Your task to perform on an android device: make emails show in primary in the gmail app Image 0: 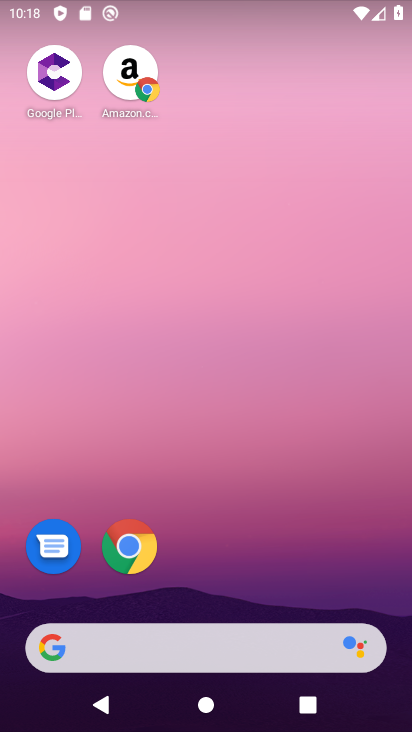
Step 0: drag from (276, 565) to (273, 51)
Your task to perform on an android device: make emails show in primary in the gmail app Image 1: 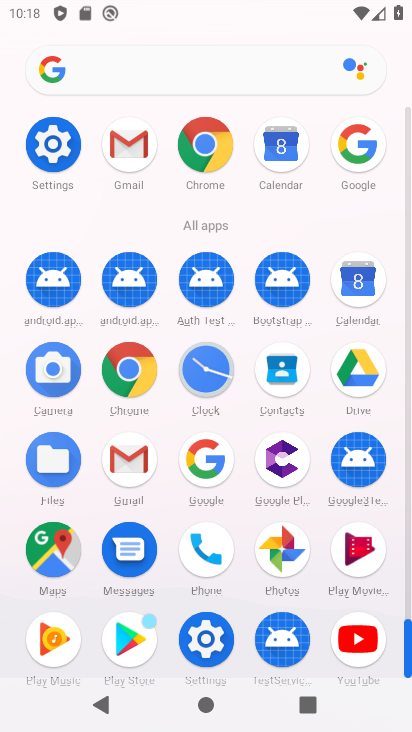
Step 1: click (127, 146)
Your task to perform on an android device: make emails show in primary in the gmail app Image 2: 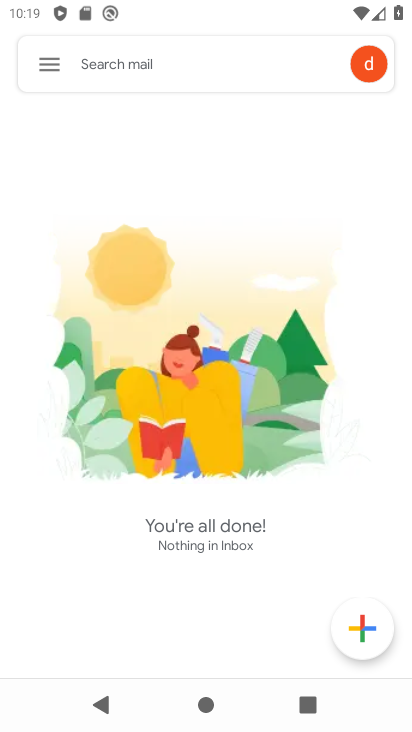
Step 2: click (49, 63)
Your task to perform on an android device: make emails show in primary in the gmail app Image 3: 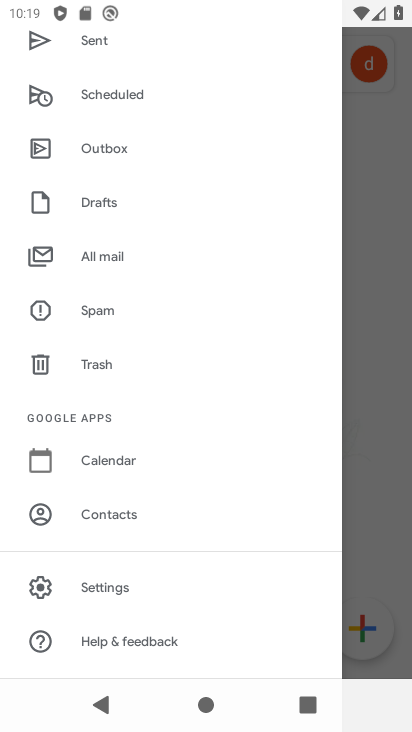
Step 3: click (111, 583)
Your task to perform on an android device: make emails show in primary in the gmail app Image 4: 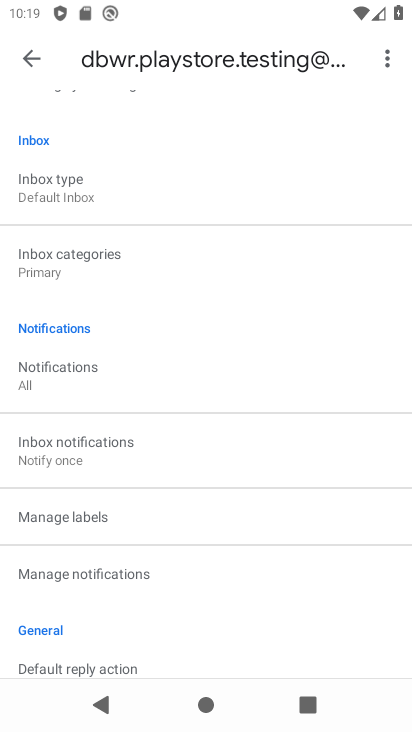
Step 4: drag from (110, 515) to (151, 402)
Your task to perform on an android device: make emails show in primary in the gmail app Image 5: 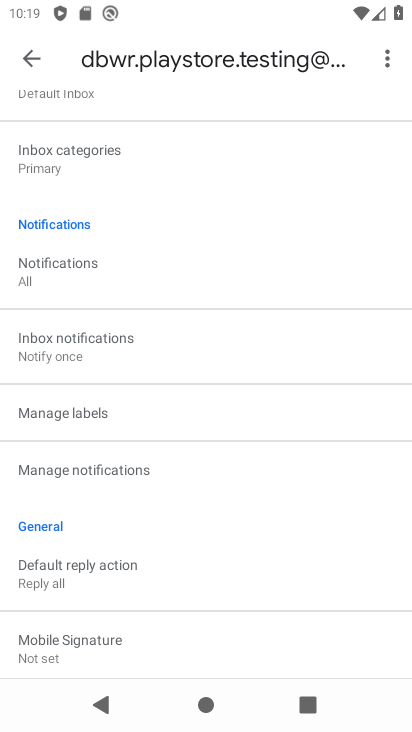
Step 5: drag from (109, 525) to (172, 401)
Your task to perform on an android device: make emails show in primary in the gmail app Image 6: 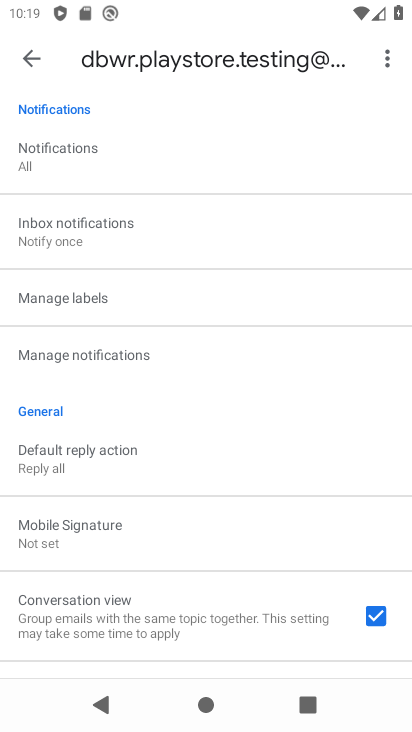
Step 6: drag from (109, 553) to (161, 456)
Your task to perform on an android device: make emails show in primary in the gmail app Image 7: 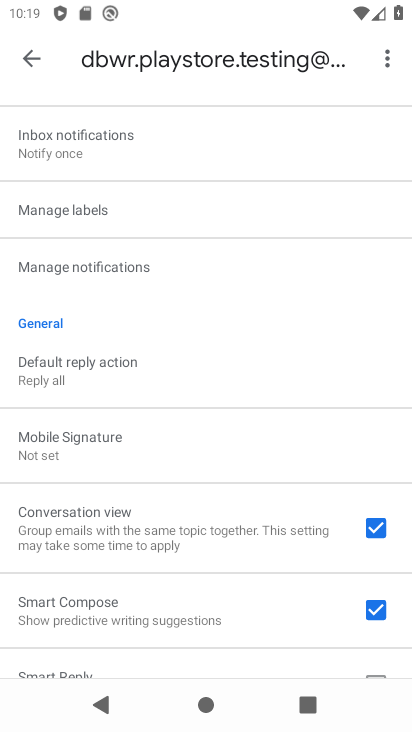
Step 7: drag from (137, 358) to (135, 542)
Your task to perform on an android device: make emails show in primary in the gmail app Image 8: 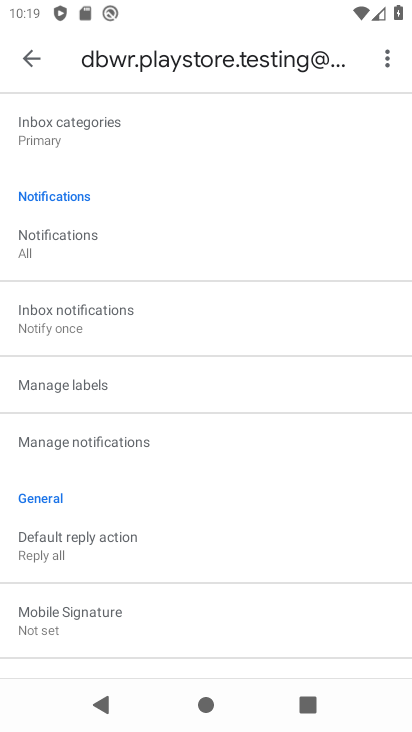
Step 8: drag from (140, 334) to (194, 507)
Your task to perform on an android device: make emails show in primary in the gmail app Image 9: 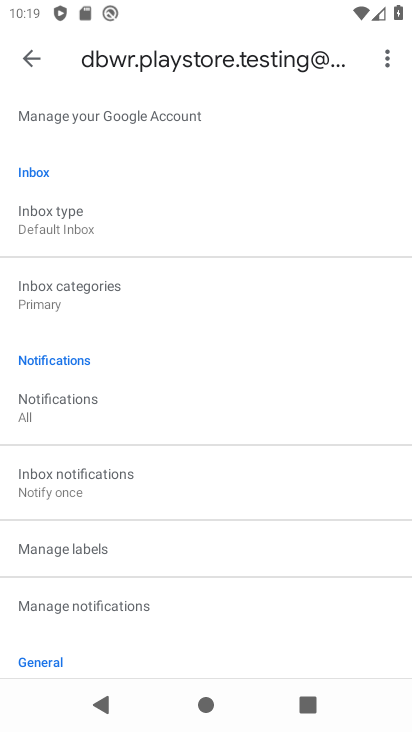
Step 9: click (92, 290)
Your task to perform on an android device: make emails show in primary in the gmail app Image 10: 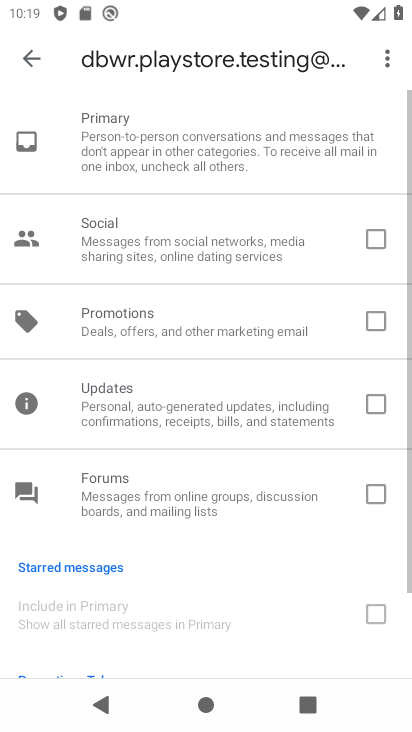
Step 10: task complete